Your task to perform on an android device: Open eBay Image 0: 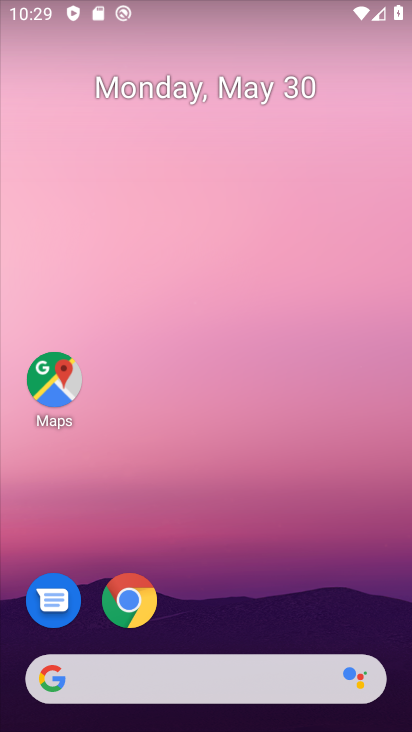
Step 0: click (138, 597)
Your task to perform on an android device: Open eBay Image 1: 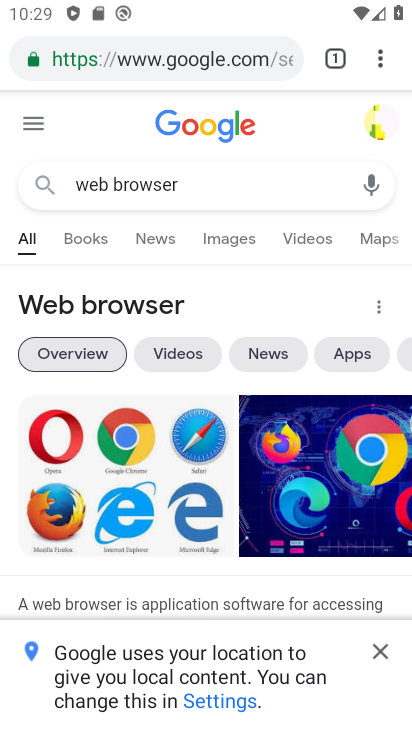
Step 1: click (180, 53)
Your task to perform on an android device: Open eBay Image 2: 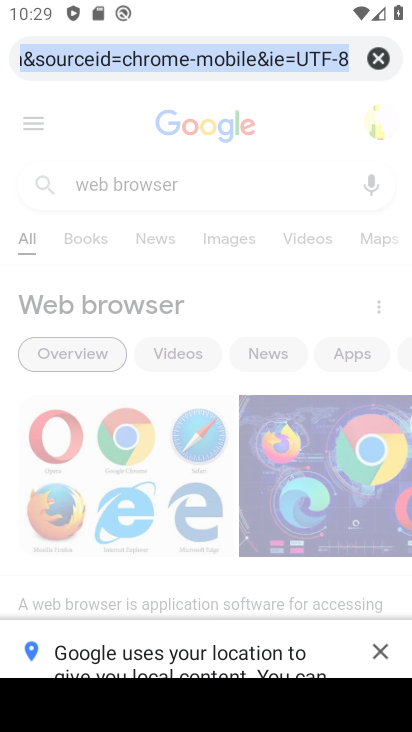
Step 2: click (383, 56)
Your task to perform on an android device: Open eBay Image 3: 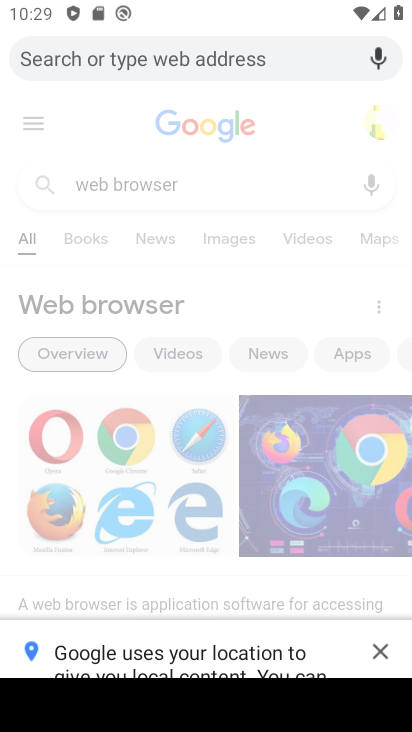
Step 3: type " eBay"
Your task to perform on an android device: Open eBay Image 4: 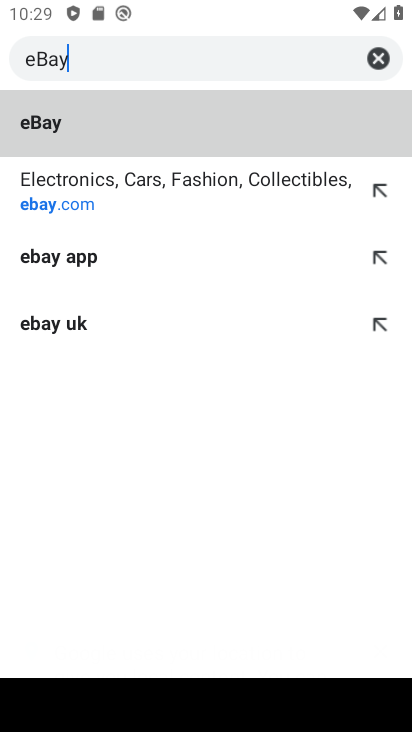
Step 4: click (53, 207)
Your task to perform on an android device: Open eBay Image 5: 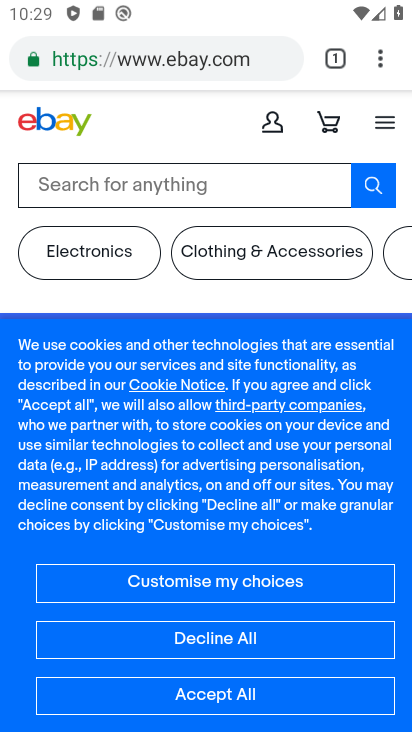
Step 5: task complete